Your task to perform on an android device: toggle data saver in the chrome app Image 0: 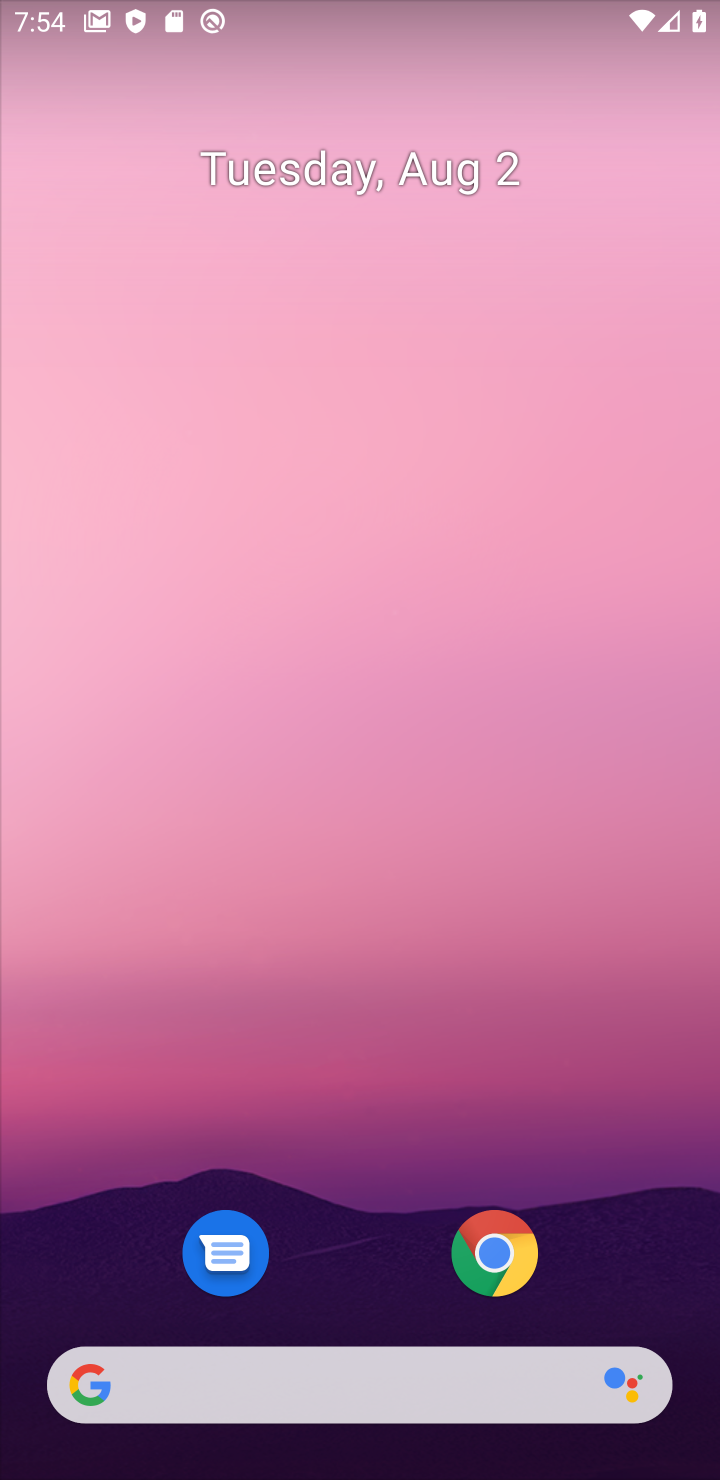
Step 0: click (497, 1252)
Your task to perform on an android device: toggle data saver in the chrome app Image 1: 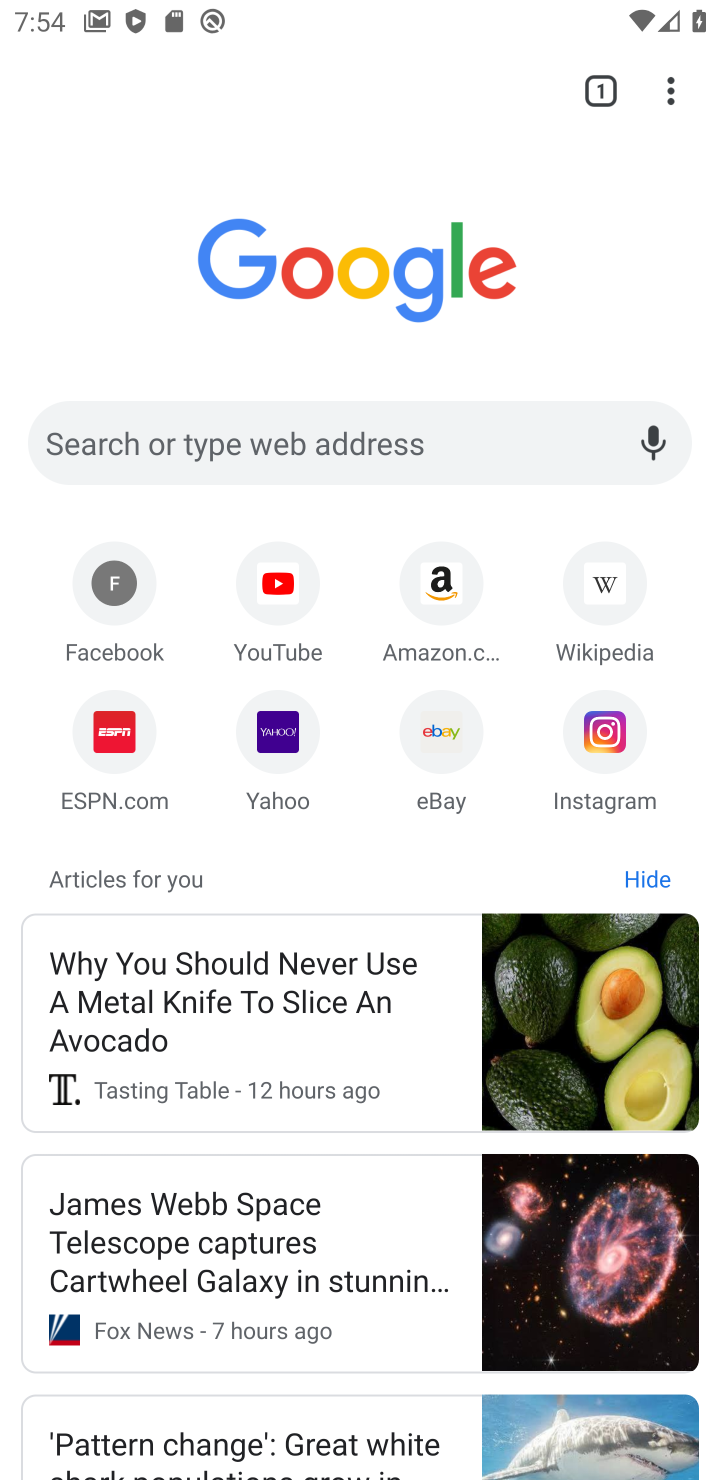
Step 1: drag from (668, 91) to (417, 875)
Your task to perform on an android device: toggle data saver in the chrome app Image 2: 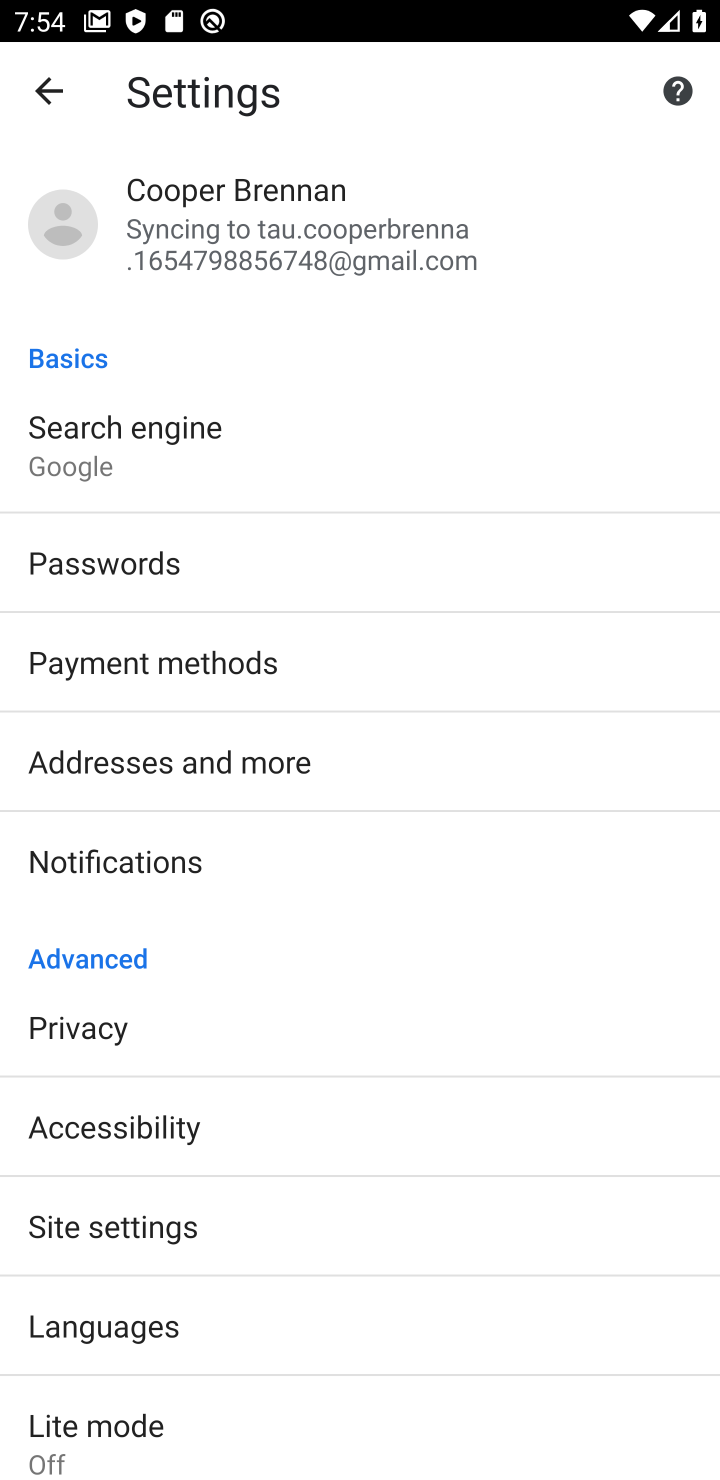
Step 2: drag from (367, 1351) to (632, 231)
Your task to perform on an android device: toggle data saver in the chrome app Image 3: 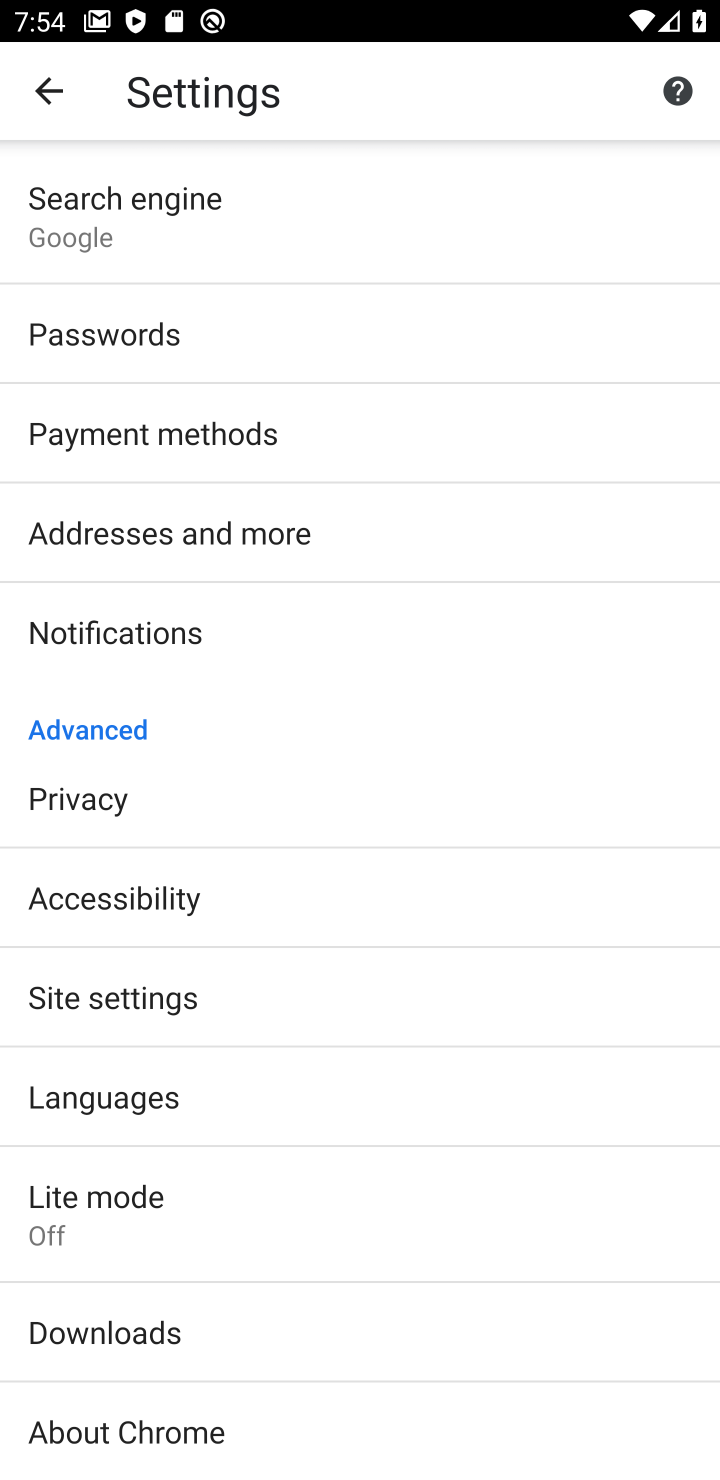
Step 3: click (147, 1213)
Your task to perform on an android device: toggle data saver in the chrome app Image 4: 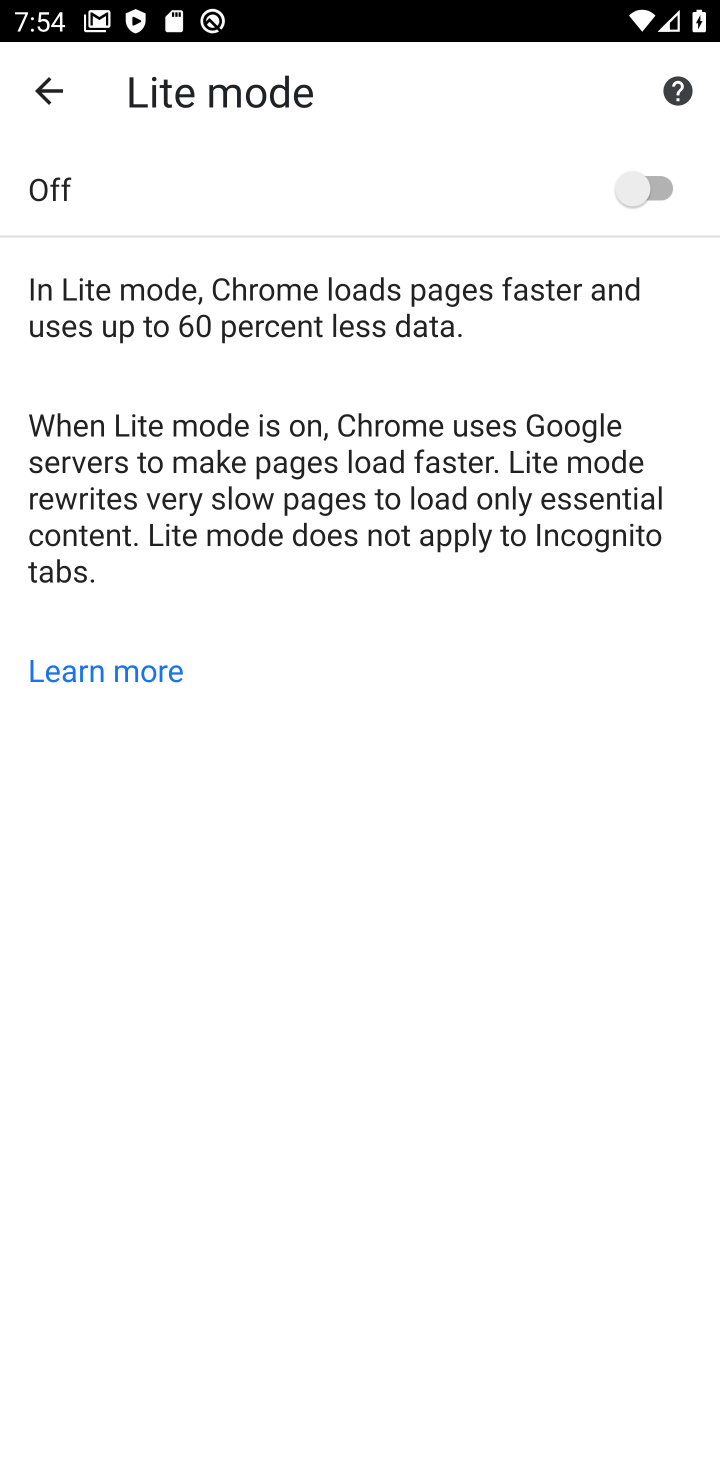
Step 4: click (665, 185)
Your task to perform on an android device: toggle data saver in the chrome app Image 5: 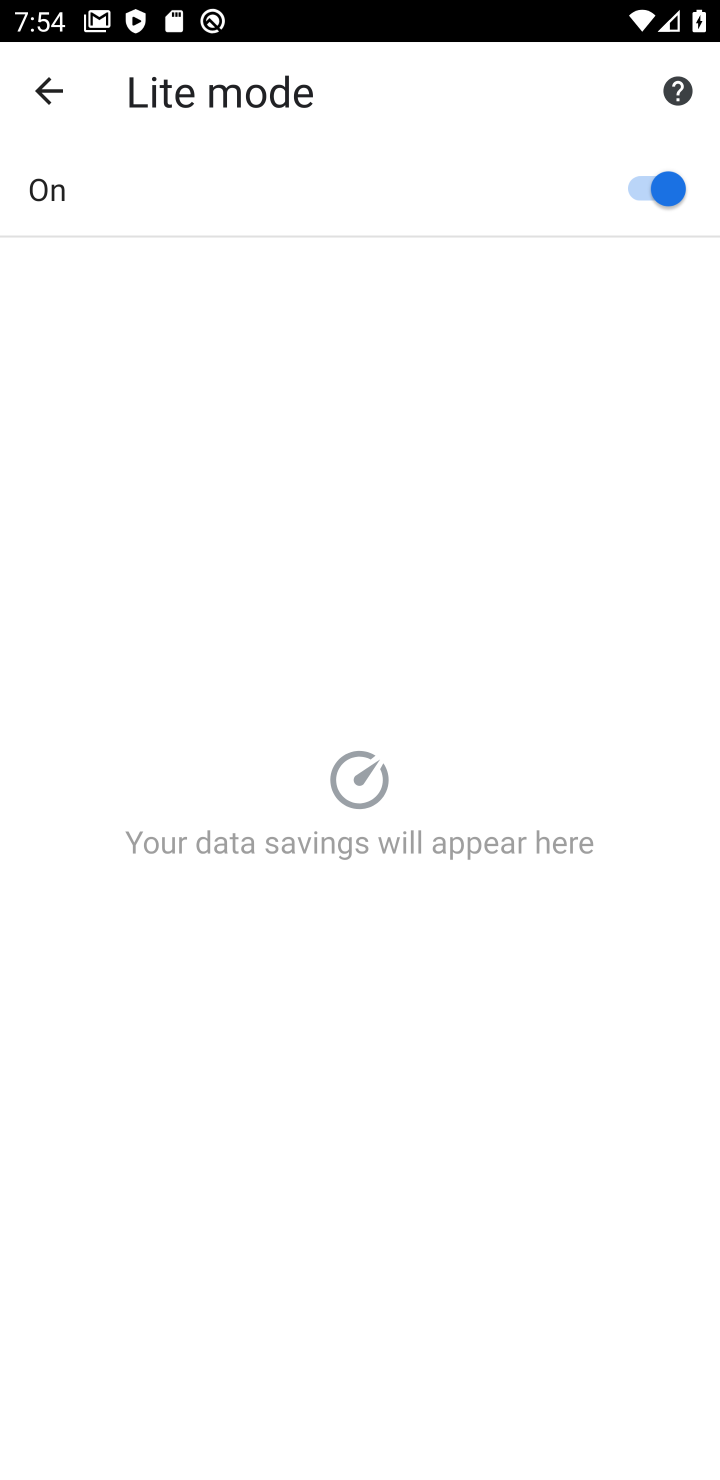
Step 5: task complete